Your task to perform on an android device: Open Google Maps Image 0: 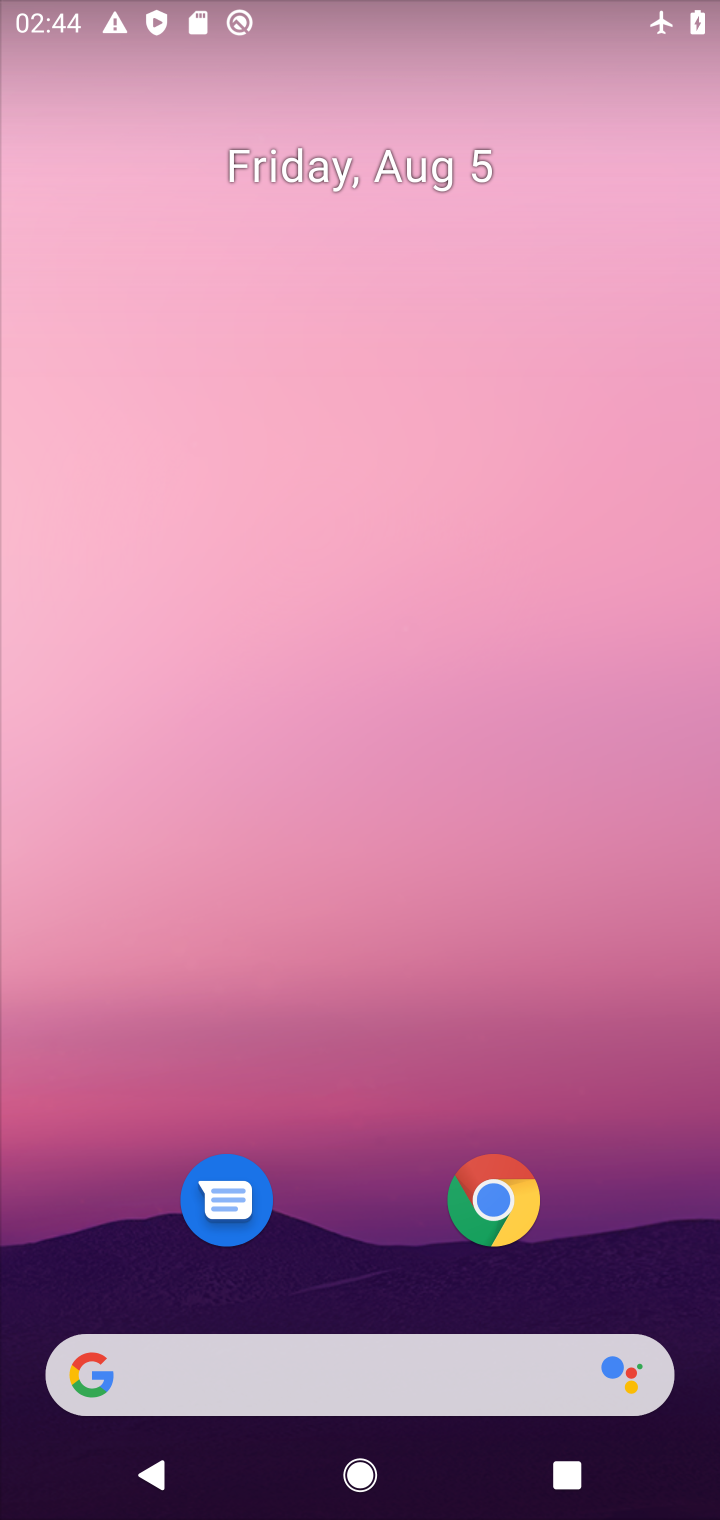
Step 0: drag from (358, 887) to (358, 239)
Your task to perform on an android device: Open Google Maps Image 1: 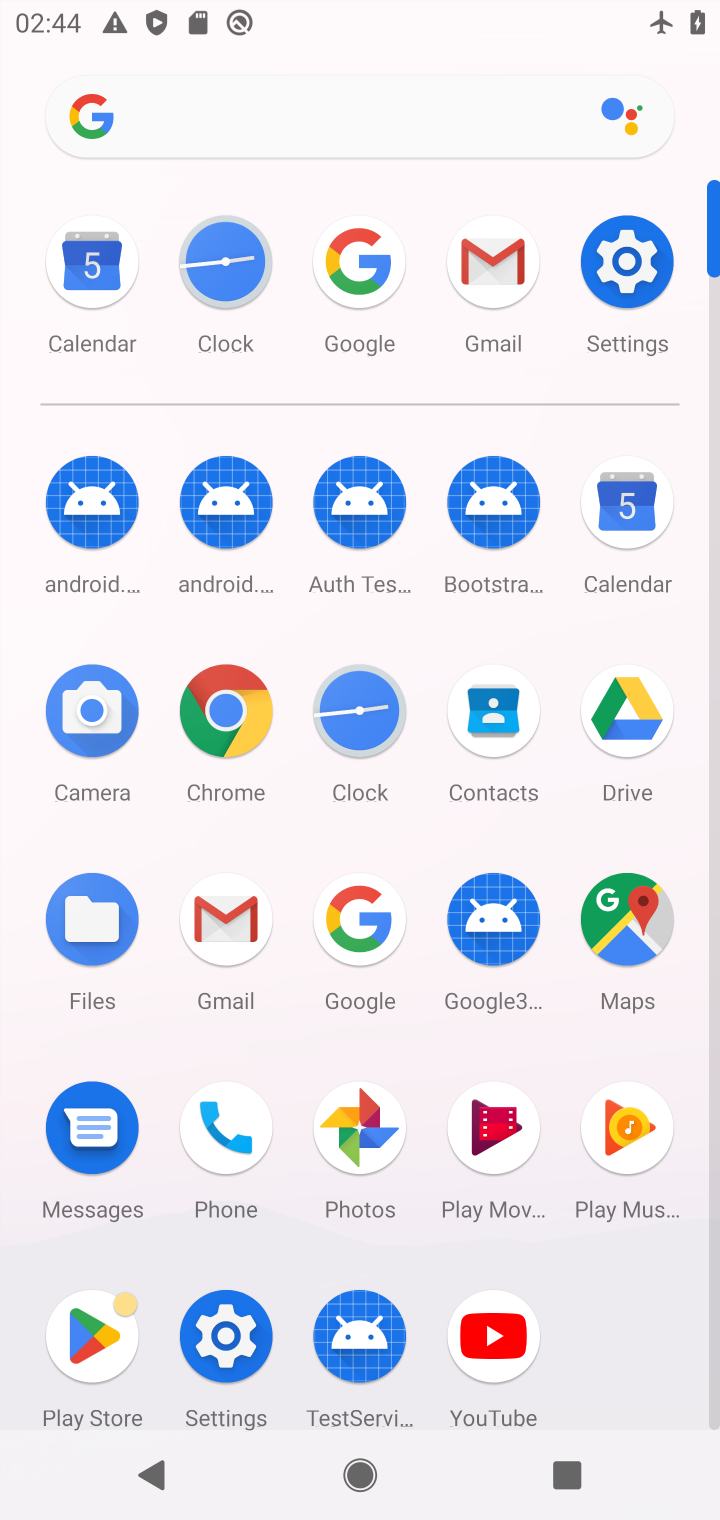
Step 1: click (600, 933)
Your task to perform on an android device: Open Google Maps Image 2: 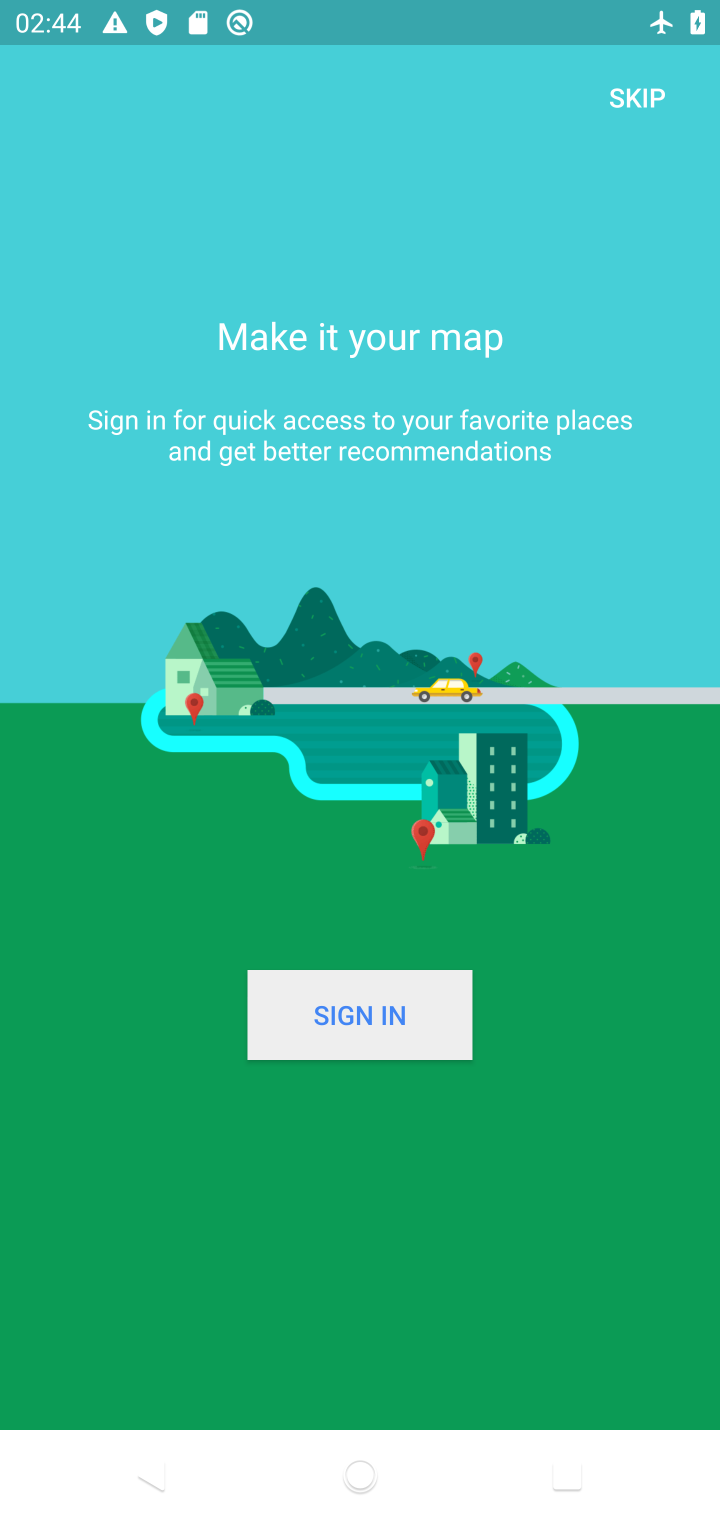
Step 2: task complete